Your task to perform on an android device: change notification settings in the gmail app Image 0: 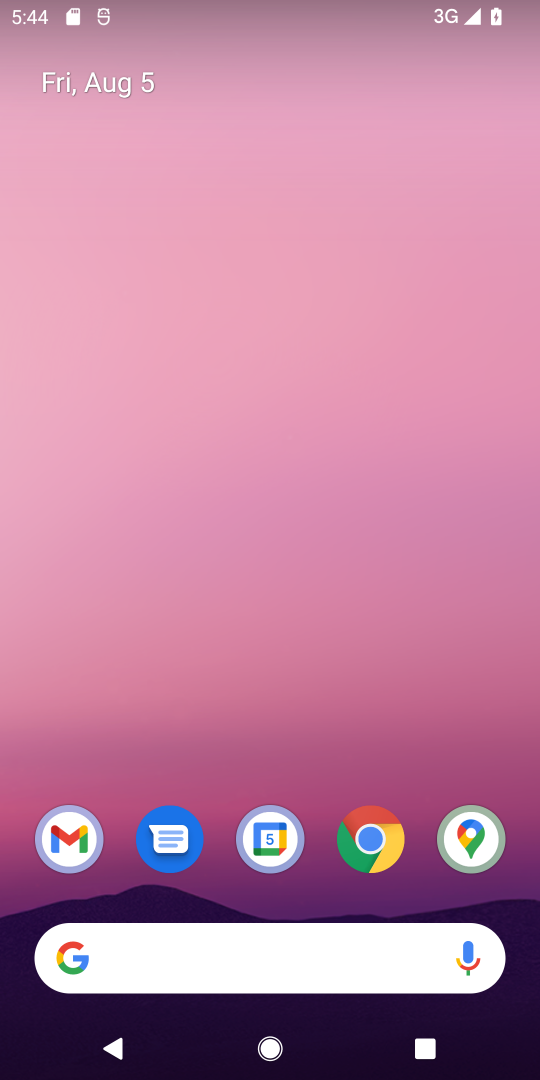
Step 0: click (83, 836)
Your task to perform on an android device: change notification settings in the gmail app Image 1: 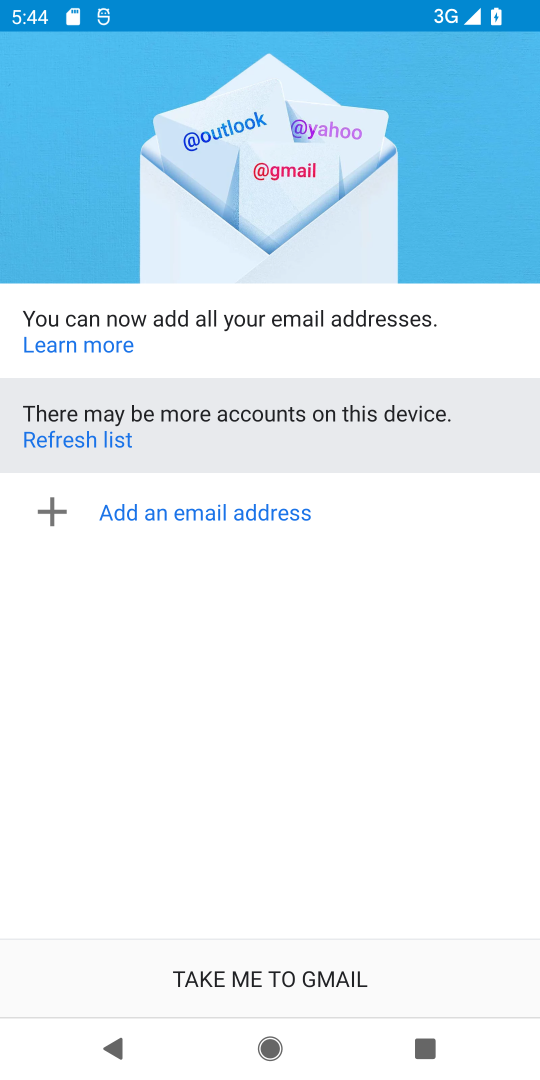
Step 1: click (213, 958)
Your task to perform on an android device: change notification settings in the gmail app Image 2: 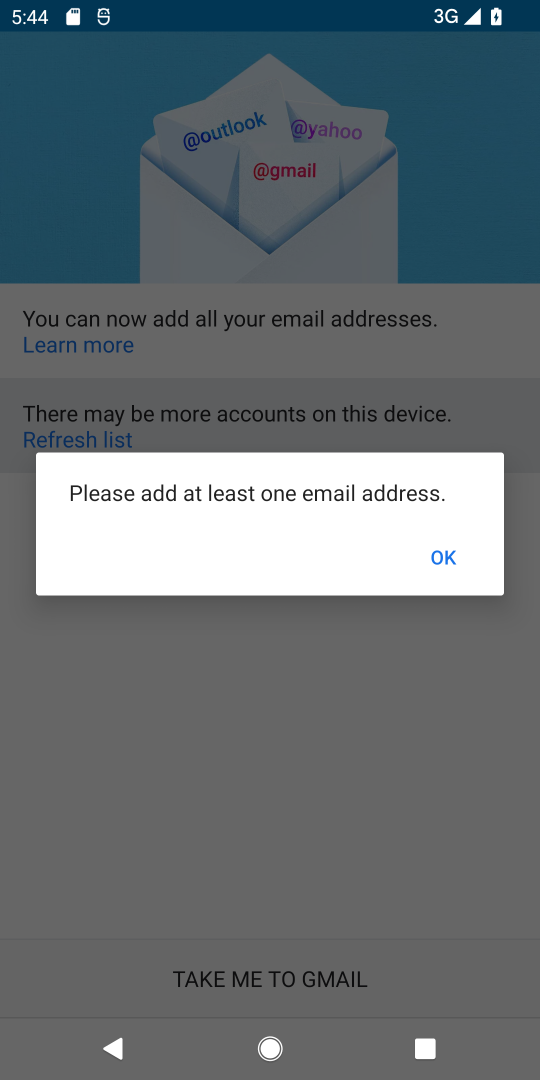
Step 2: click (459, 561)
Your task to perform on an android device: change notification settings in the gmail app Image 3: 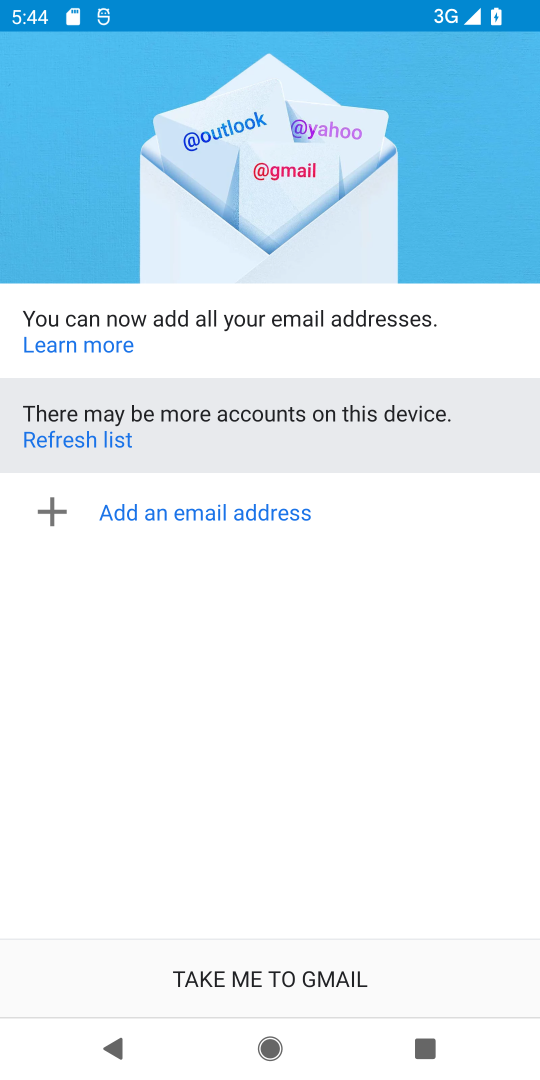
Step 3: task complete